Your task to perform on an android device: Open Maps and search for coffee Image 0: 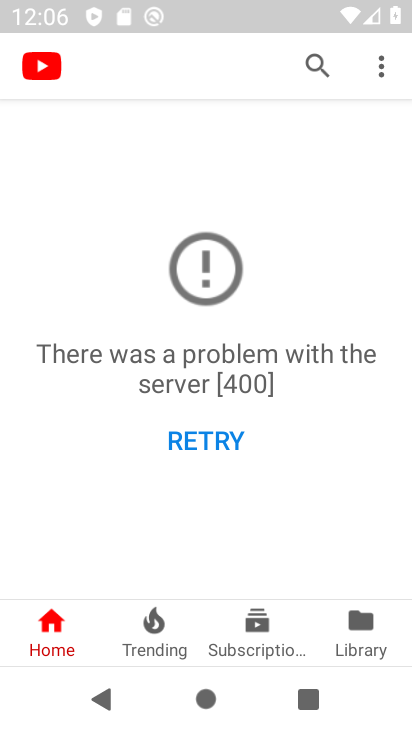
Step 0: press home button
Your task to perform on an android device: Open Maps and search for coffee Image 1: 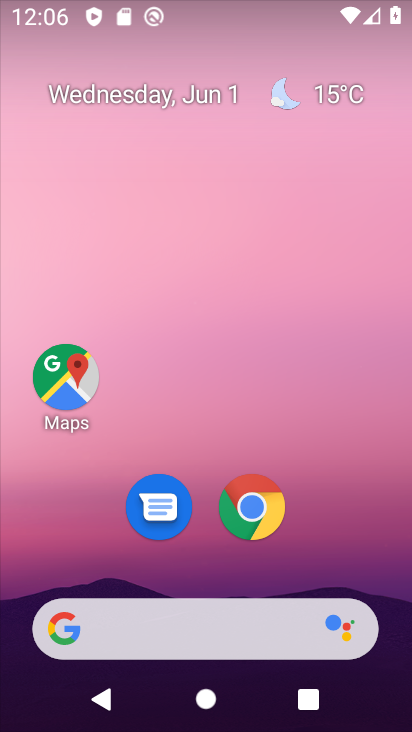
Step 1: click (64, 378)
Your task to perform on an android device: Open Maps and search for coffee Image 2: 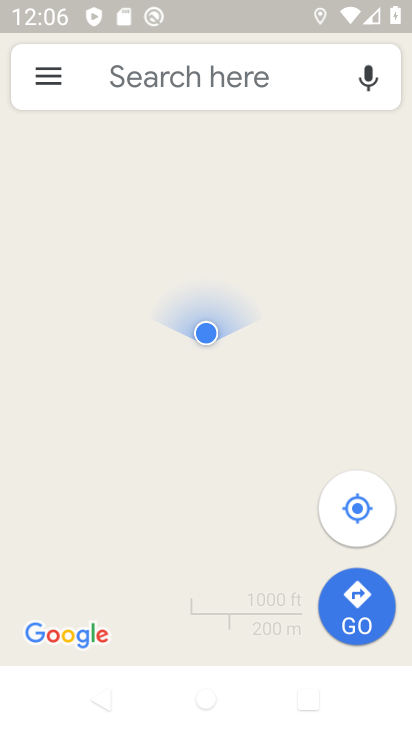
Step 2: click (221, 71)
Your task to perform on an android device: Open Maps and search for coffee Image 3: 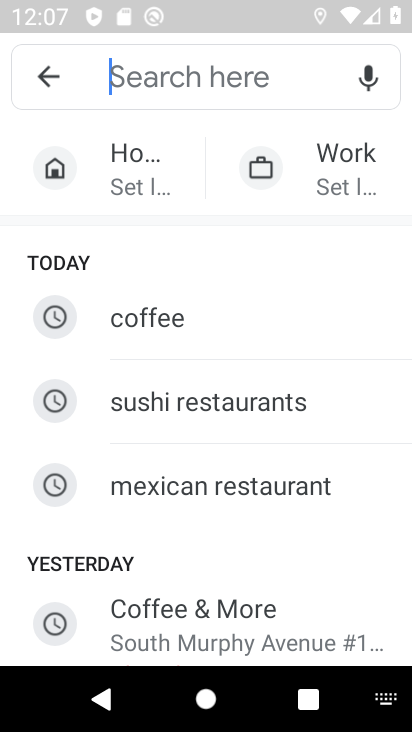
Step 3: type "coffee"
Your task to perform on an android device: Open Maps and search for coffee Image 4: 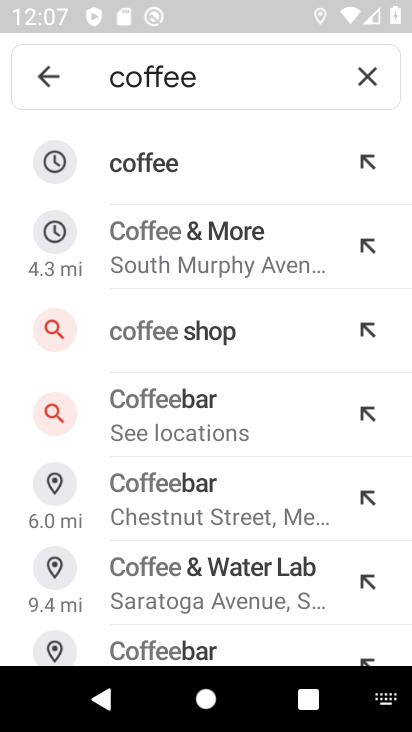
Step 4: click (149, 169)
Your task to perform on an android device: Open Maps and search for coffee Image 5: 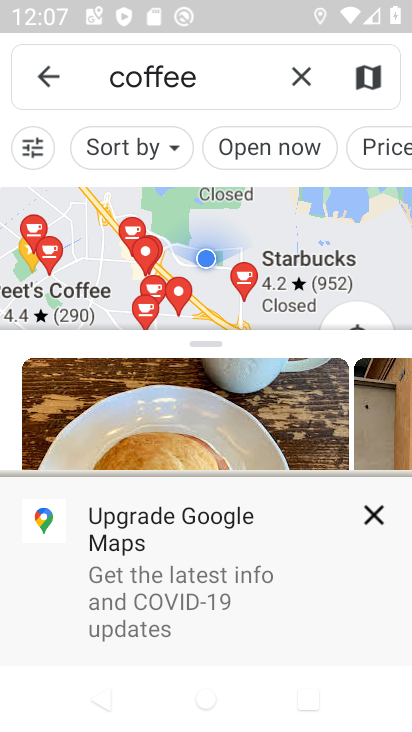
Step 5: click (376, 518)
Your task to perform on an android device: Open Maps and search for coffee Image 6: 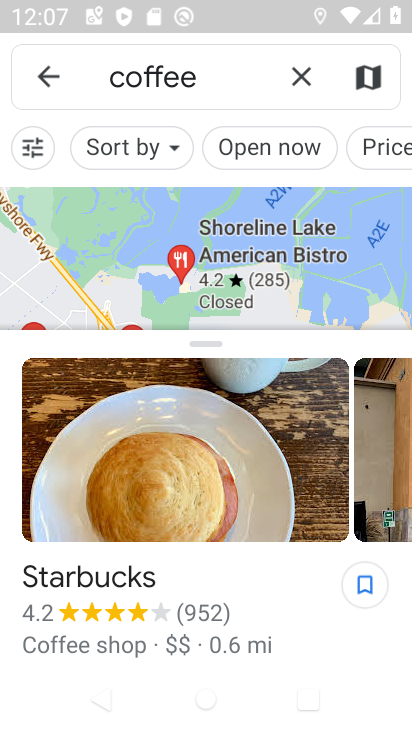
Step 6: task complete